Your task to perform on an android device: Open eBay Image 0: 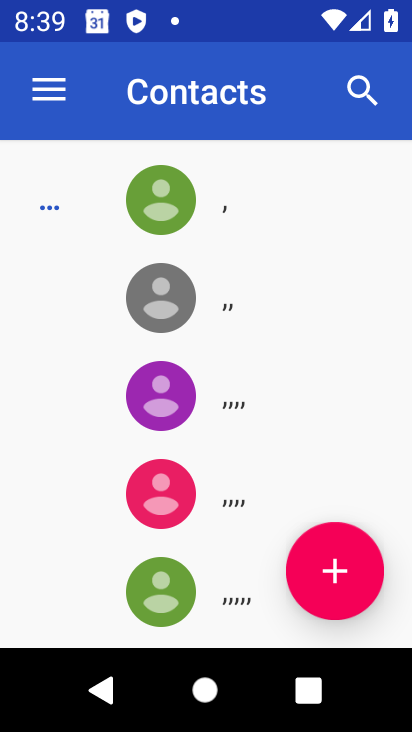
Step 0: press home button
Your task to perform on an android device: Open eBay Image 1: 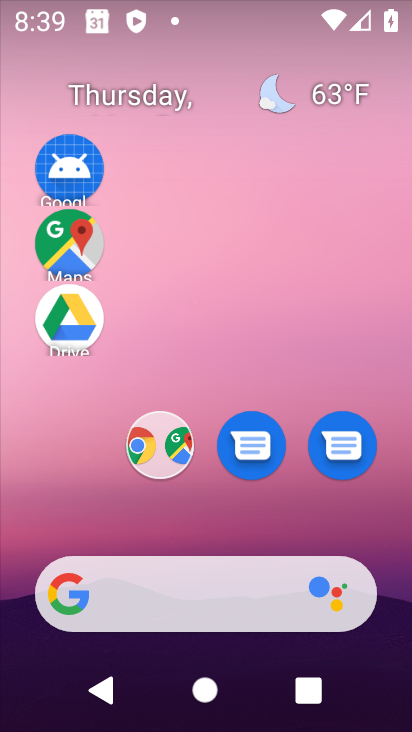
Step 1: click (183, 568)
Your task to perform on an android device: Open eBay Image 2: 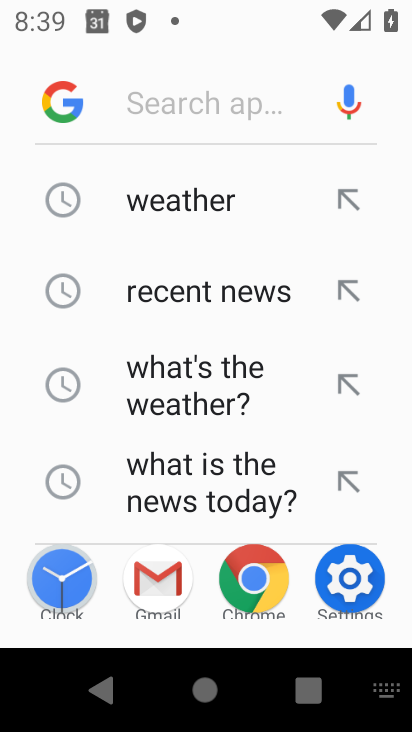
Step 2: type "ebay"
Your task to perform on an android device: Open eBay Image 3: 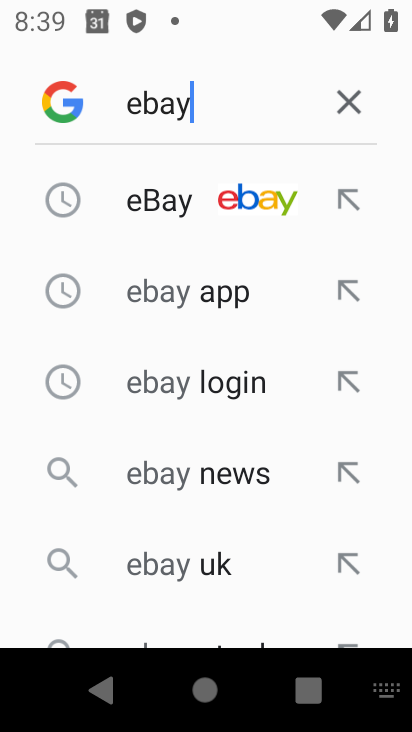
Step 3: click (155, 229)
Your task to perform on an android device: Open eBay Image 4: 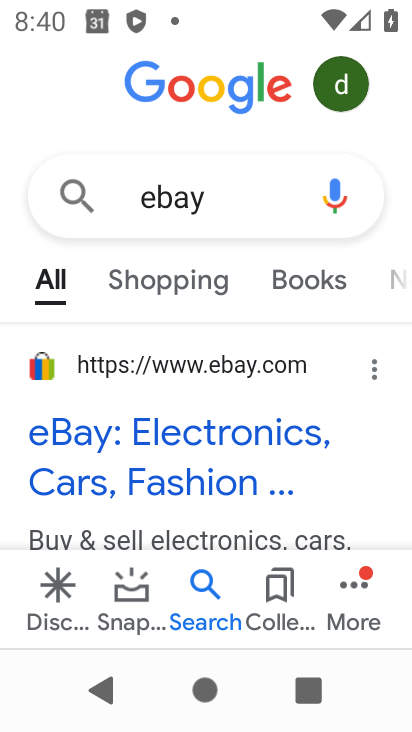
Step 4: click (116, 457)
Your task to perform on an android device: Open eBay Image 5: 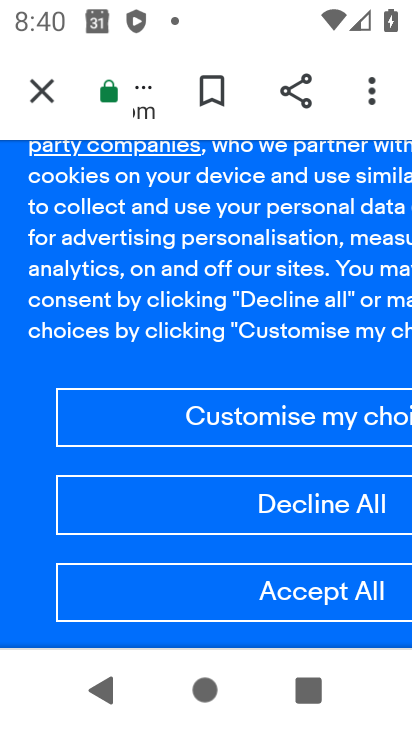
Step 5: click (276, 428)
Your task to perform on an android device: Open eBay Image 6: 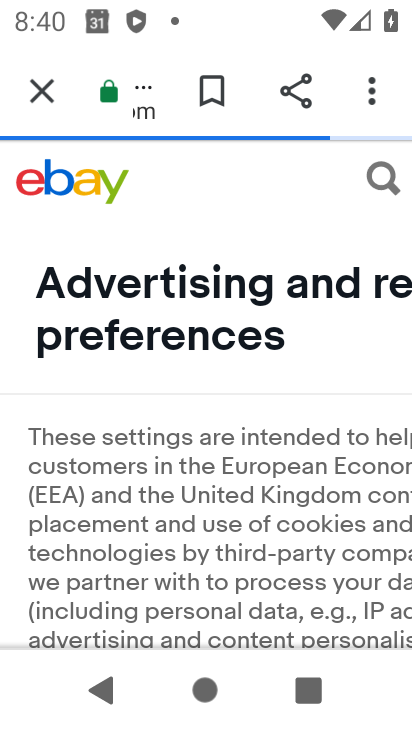
Step 6: task complete